Your task to perform on an android device: Open notification settings Image 0: 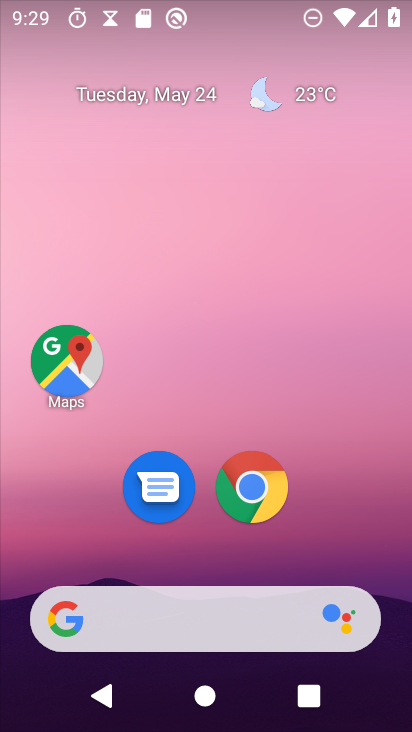
Step 0: press home button
Your task to perform on an android device: Open notification settings Image 1: 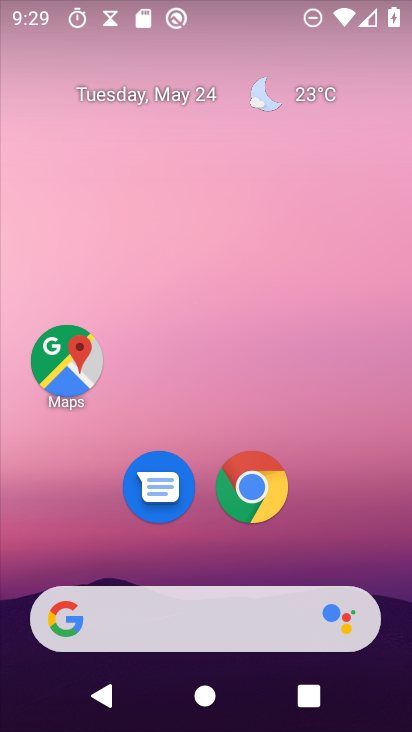
Step 1: drag from (32, 615) to (257, 158)
Your task to perform on an android device: Open notification settings Image 2: 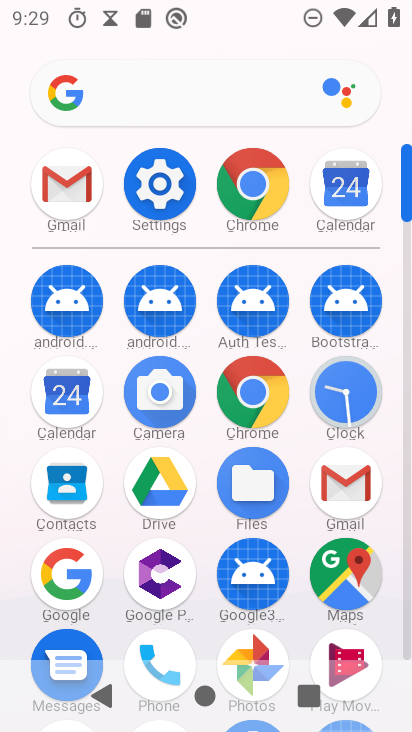
Step 2: click (149, 184)
Your task to perform on an android device: Open notification settings Image 3: 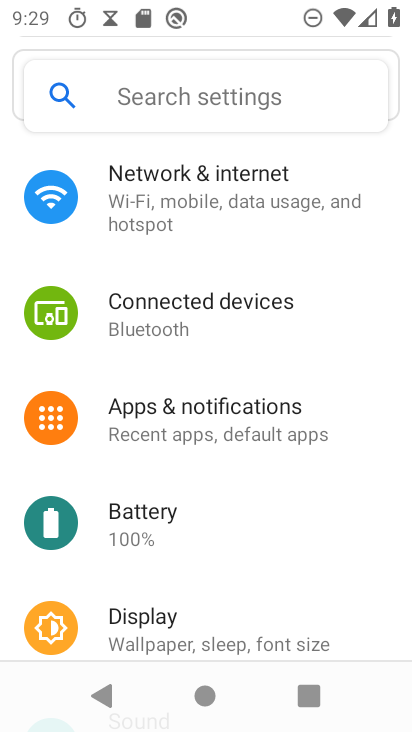
Step 3: click (180, 418)
Your task to perform on an android device: Open notification settings Image 4: 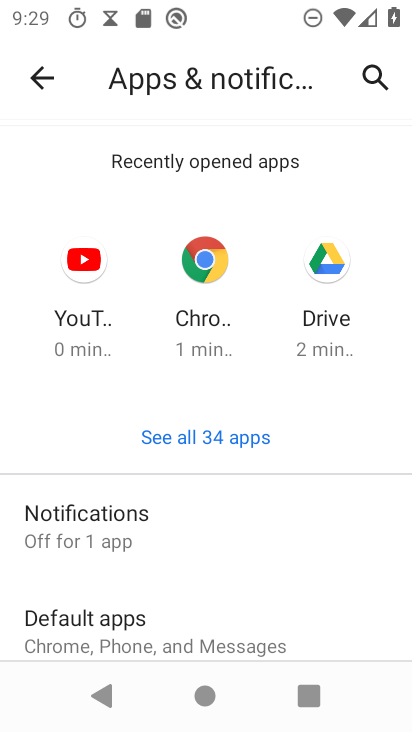
Step 4: task complete